Your task to perform on an android device: Open Google Chrome and click the shortcut for Amazon.com Image 0: 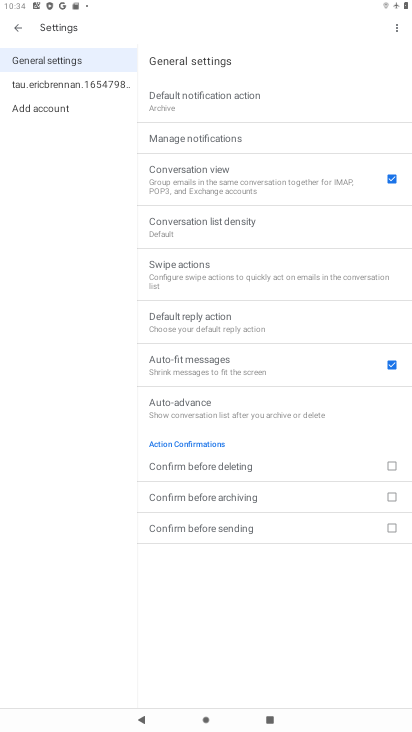
Step 0: press home button
Your task to perform on an android device: Open Google Chrome and click the shortcut for Amazon.com Image 1: 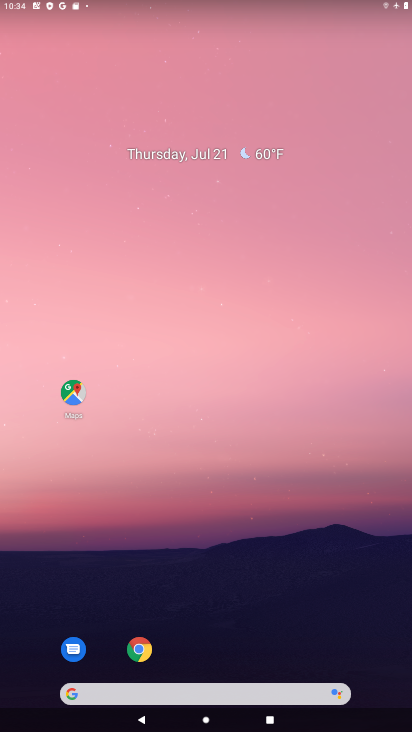
Step 1: click (139, 649)
Your task to perform on an android device: Open Google Chrome and click the shortcut for Amazon.com Image 2: 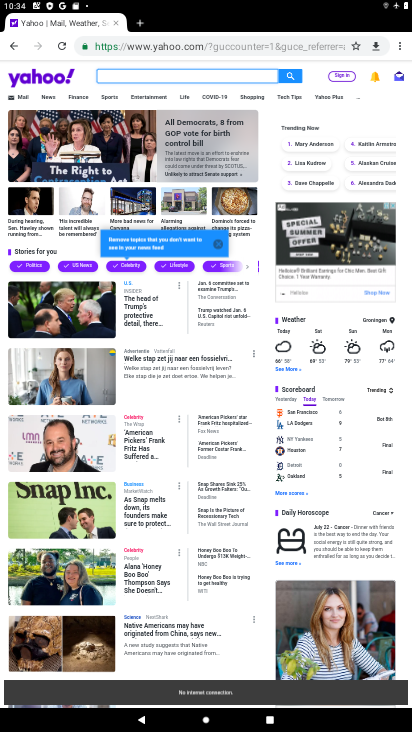
Step 2: click (291, 43)
Your task to perform on an android device: Open Google Chrome and click the shortcut for Amazon.com Image 3: 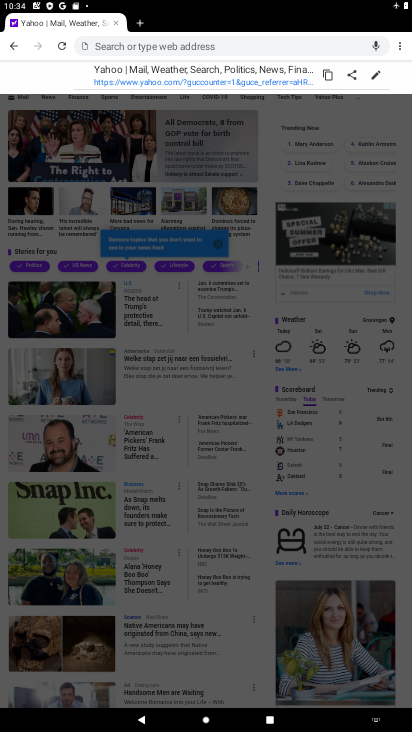
Step 3: type "Amazon.com"
Your task to perform on an android device: Open Google Chrome and click the shortcut for Amazon.com Image 4: 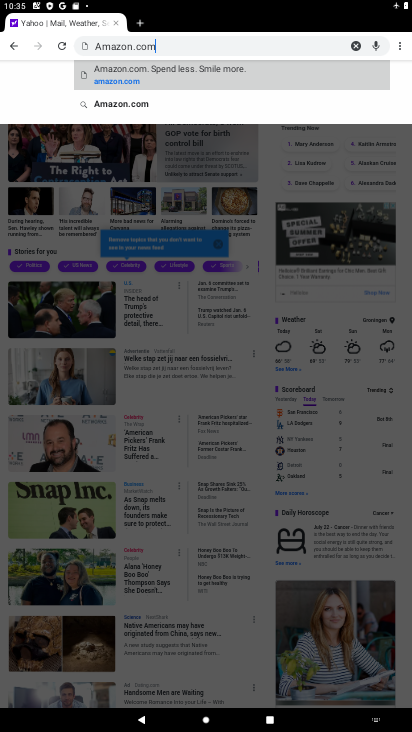
Step 4: click (122, 110)
Your task to perform on an android device: Open Google Chrome and click the shortcut for Amazon.com Image 5: 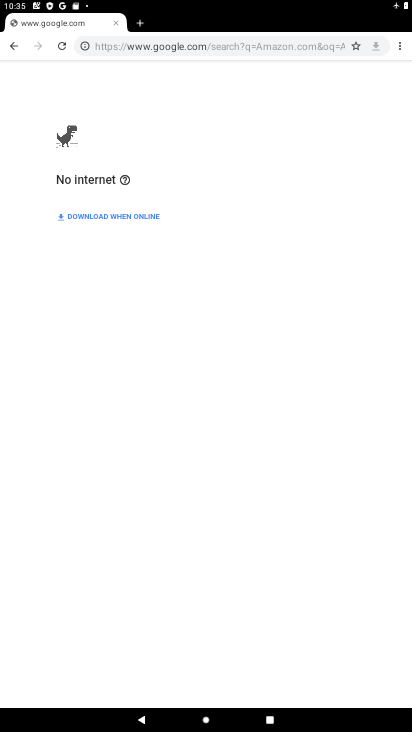
Step 5: task complete